Your task to perform on an android device: turn on translation in the chrome app Image 0: 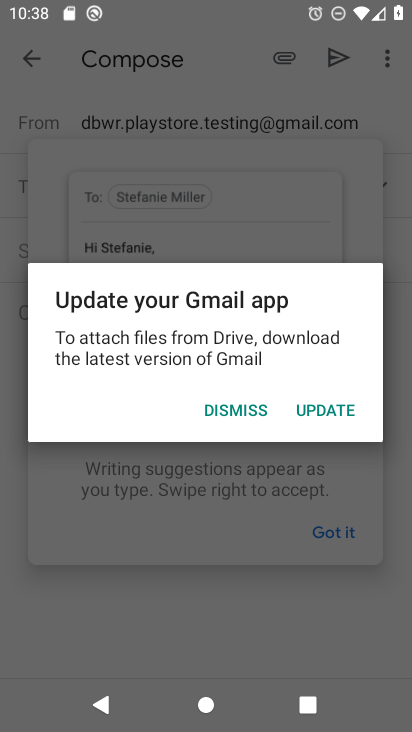
Step 0: press home button
Your task to perform on an android device: turn on translation in the chrome app Image 1: 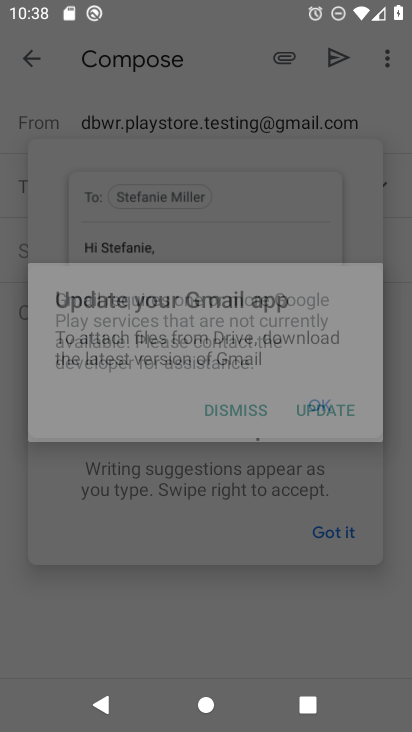
Step 1: press home button
Your task to perform on an android device: turn on translation in the chrome app Image 2: 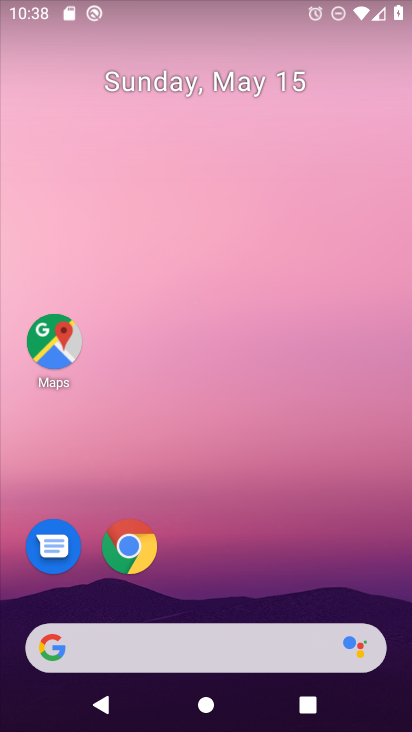
Step 2: click (135, 536)
Your task to perform on an android device: turn on translation in the chrome app Image 3: 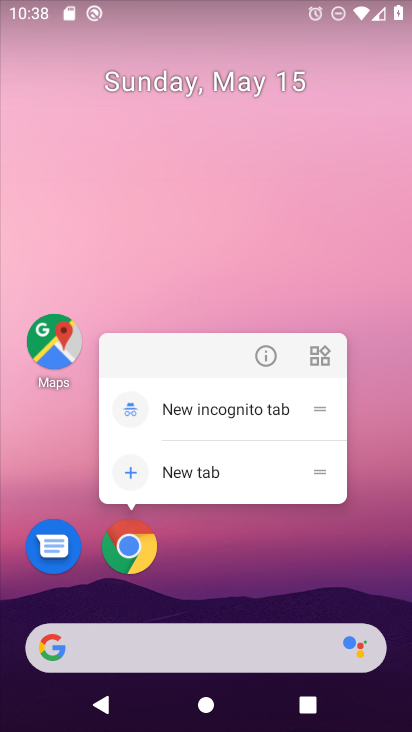
Step 3: click (137, 541)
Your task to perform on an android device: turn on translation in the chrome app Image 4: 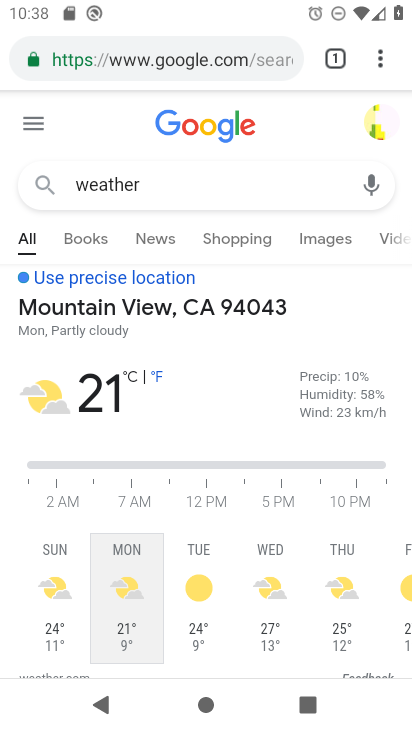
Step 4: drag from (389, 51) to (175, 574)
Your task to perform on an android device: turn on translation in the chrome app Image 5: 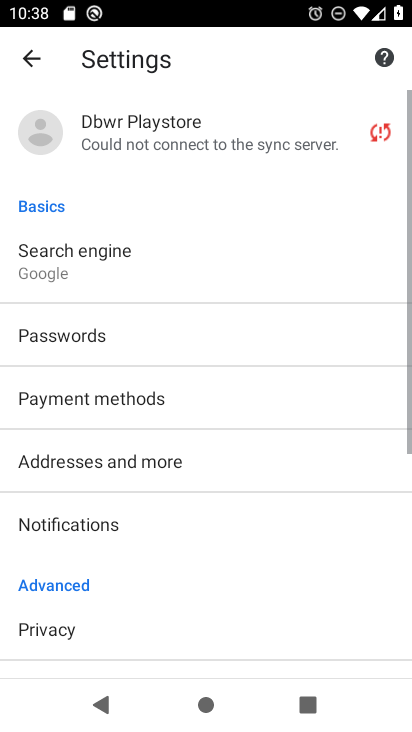
Step 5: drag from (179, 525) to (160, 117)
Your task to perform on an android device: turn on translation in the chrome app Image 6: 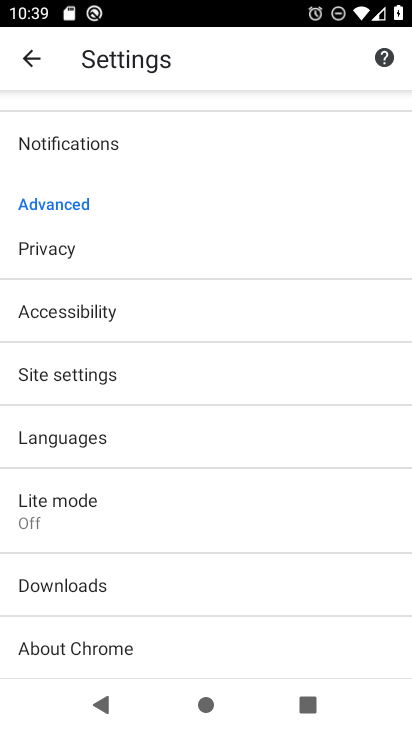
Step 6: click (114, 451)
Your task to perform on an android device: turn on translation in the chrome app Image 7: 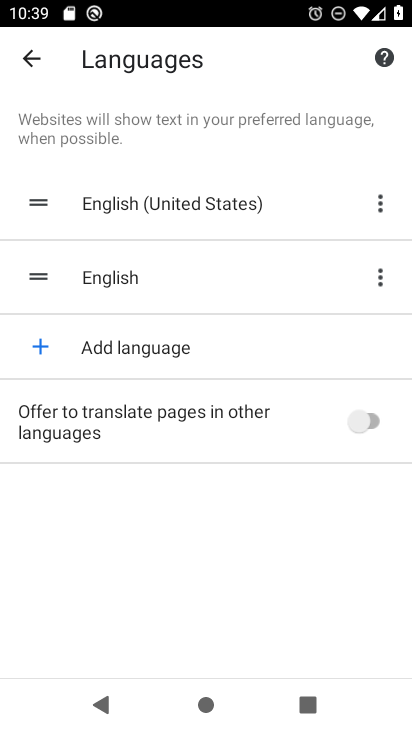
Step 7: click (349, 411)
Your task to perform on an android device: turn on translation in the chrome app Image 8: 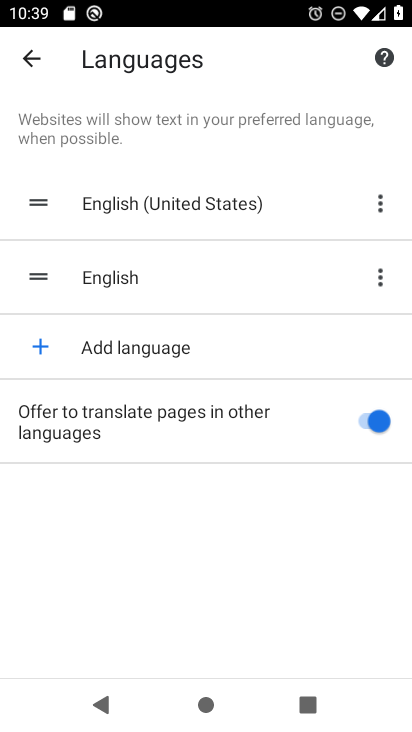
Step 8: task complete